Your task to perform on an android device: manage bookmarks in the chrome app Image 0: 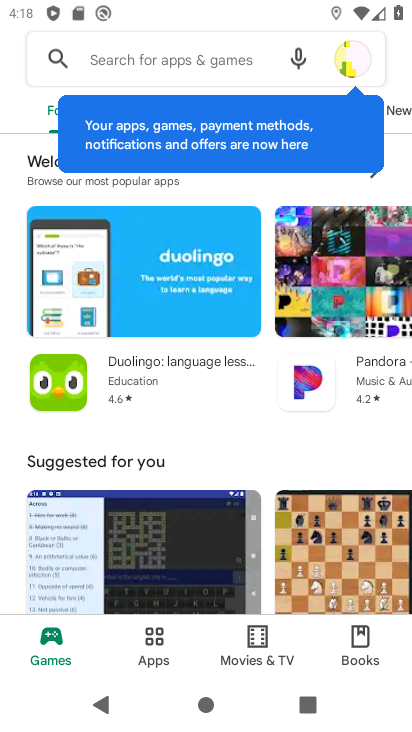
Step 0: press back button
Your task to perform on an android device: manage bookmarks in the chrome app Image 1: 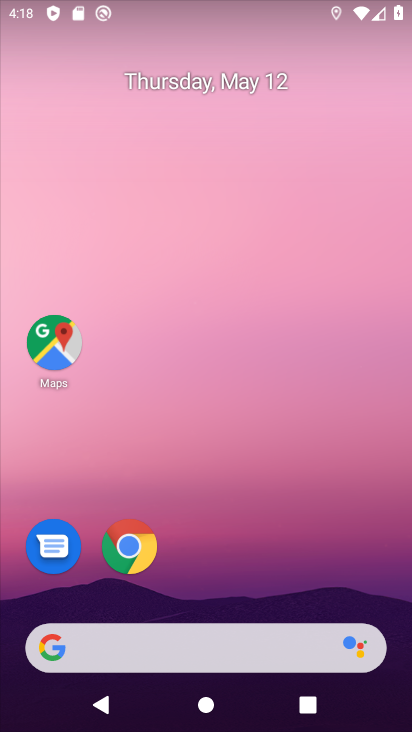
Step 1: drag from (195, 573) to (180, 18)
Your task to perform on an android device: manage bookmarks in the chrome app Image 2: 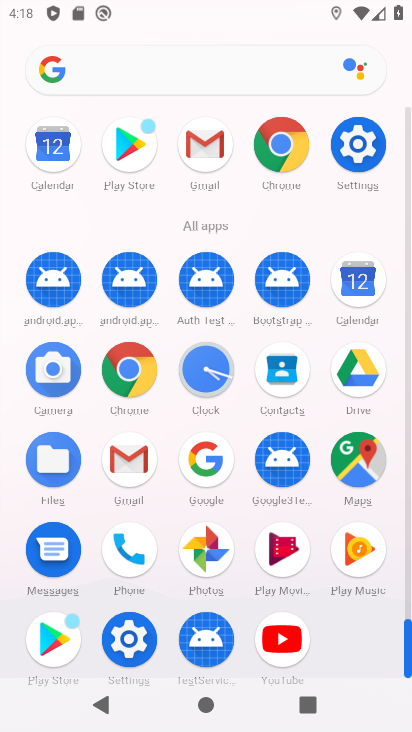
Step 2: click (277, 137)
Your task to perform on an android device: manage bookmarks in the chrome app Image 3: 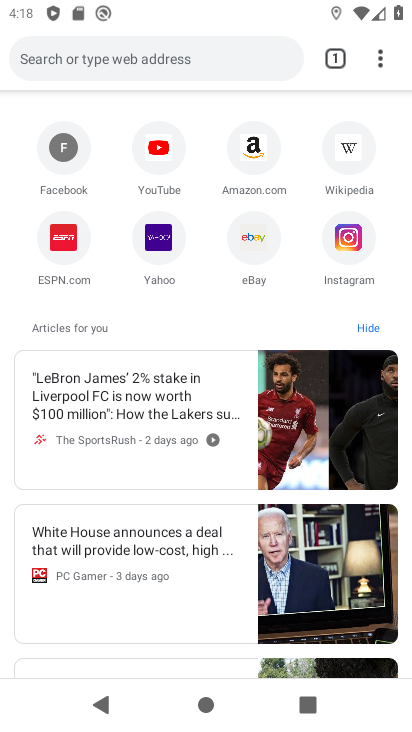
Step 3: drag from (382, 53) to (209, 216)
Your task to perform on an android device: manage bookmarks in the chrome app Image 4: 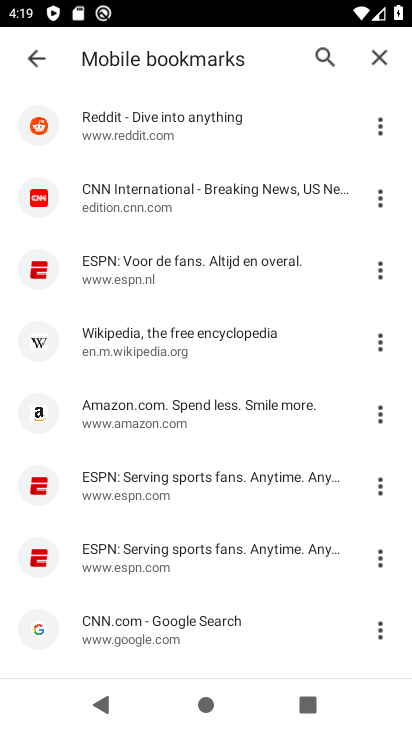
Step 4: drag from (246, 616) to (246, 186)
Your task to perform on an android device: manage bookmarks in the chrome app Image 5: 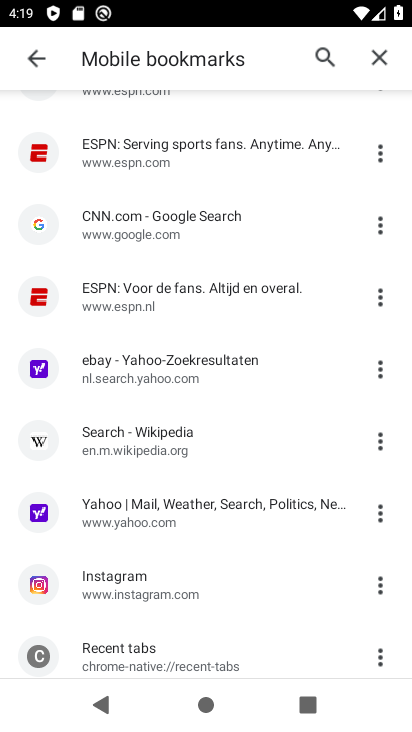
Step 5: click (382, 368)
Your task to perform on an android device: manage bookmarks in the chrome app Image 6: 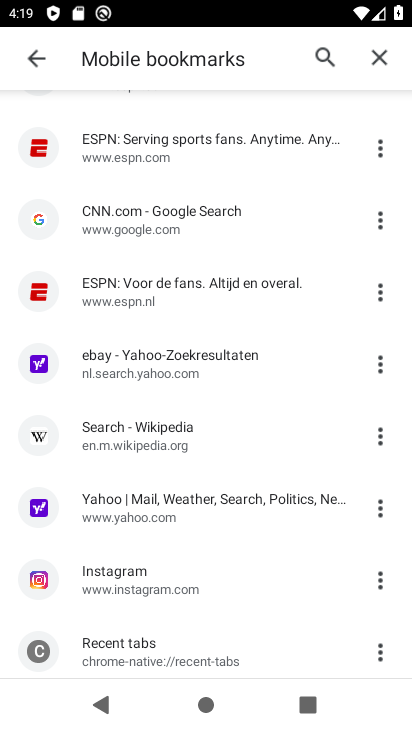
Step 6: click (379, 369)
Your task to perform on an android device: manage bookmarks in the chrome app Image 7: 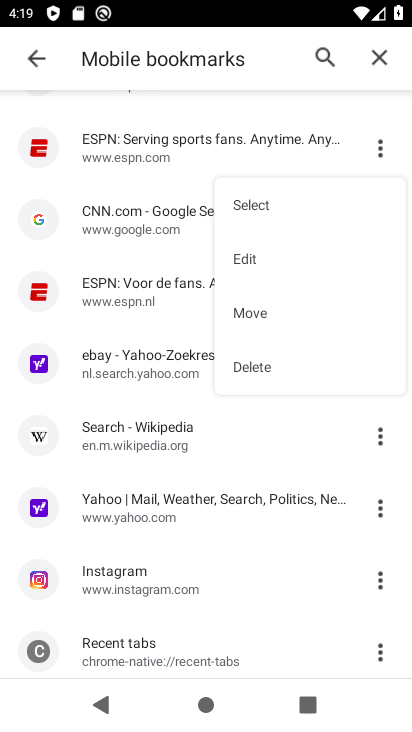
Step 7: click (328, 368)
Your task to perform on an android device: manage bookmarks in the chrome app Image 8: 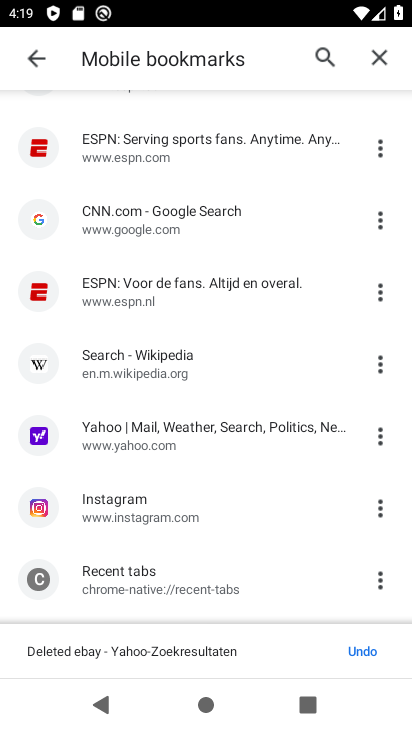
Step 8: task complete